Your task to perform on an android device: Turn off the flashlight Image 0: 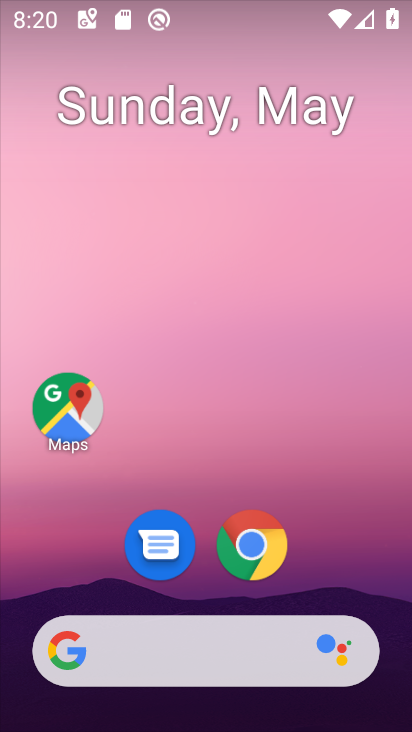
Step 0: drag from (261, 0) to (245, 678)
Your task to perform on an android device: Turn off the flashlight Image 1: 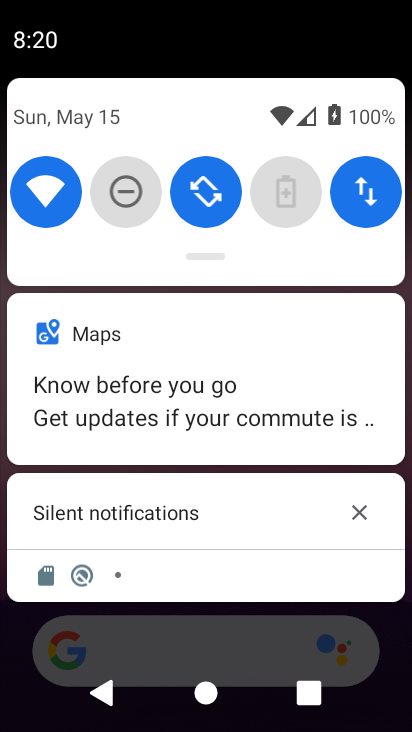
Step 1: task complete